Your task to perform on an android device: all mails in gmail Image 0: 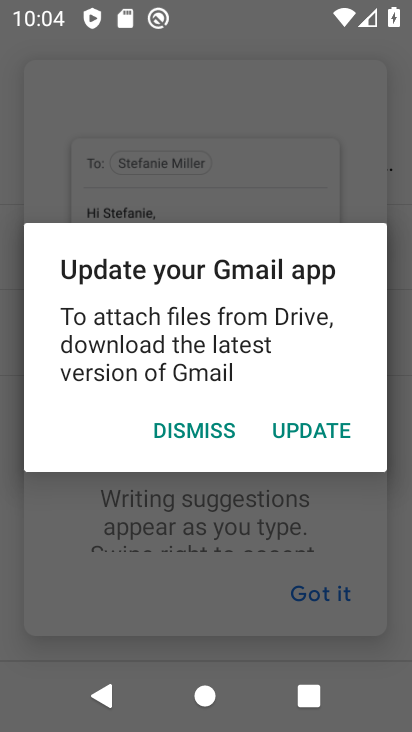
Step 0: press home button
Your task to perform on an android device: all mails in gmail Image 1: 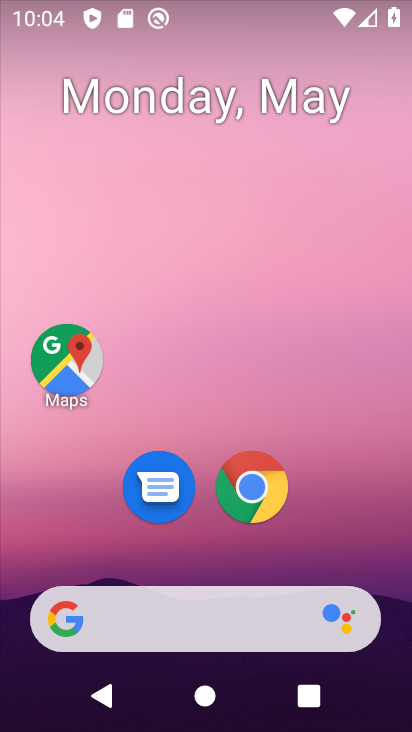
Step 1: drag from (199, 449) to (281, 20)
Your task to perform on an android device: all mails in gmail Image 2: 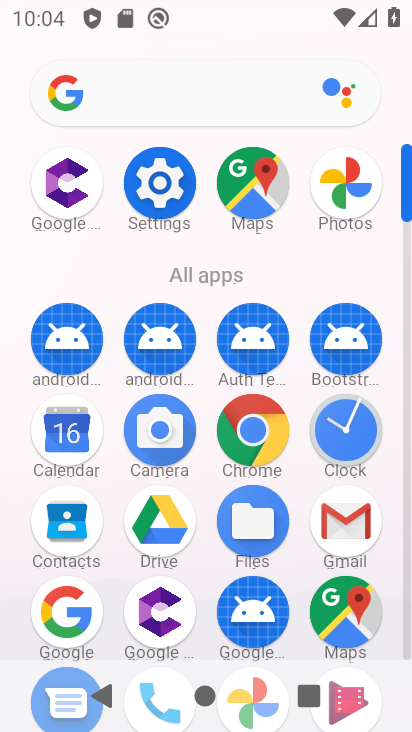
Step 2: click (332, 533)
Your task to perform on an android device: all mails in gmail Image 3: 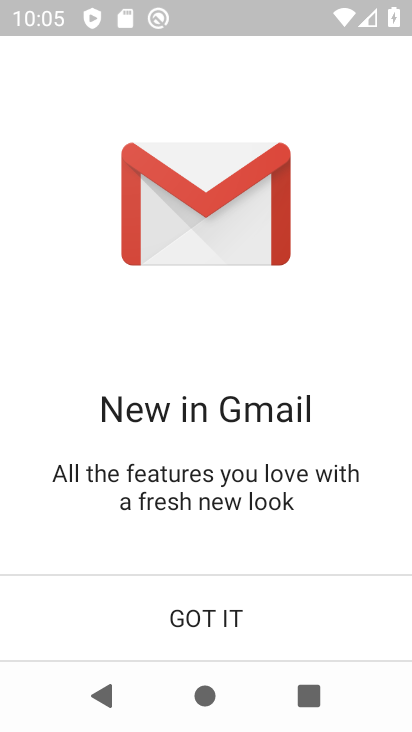
Step 3: click (245, 609)
Your task to perform on an android device: all mails in gmail Image 4: 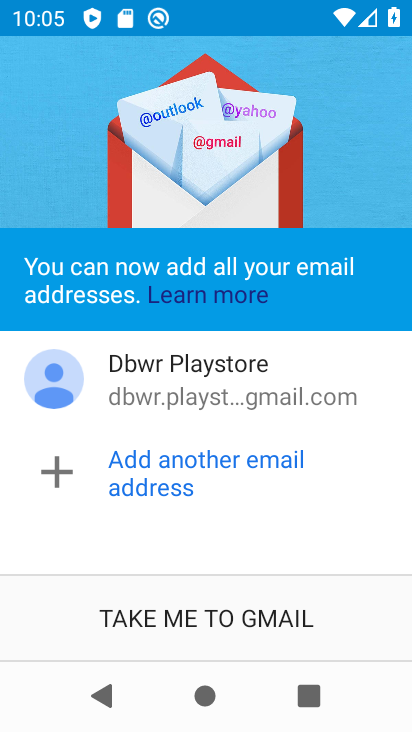
Step 4: click (165, 626)
Your task to perform on an android device: all mails in gmail Image 5: 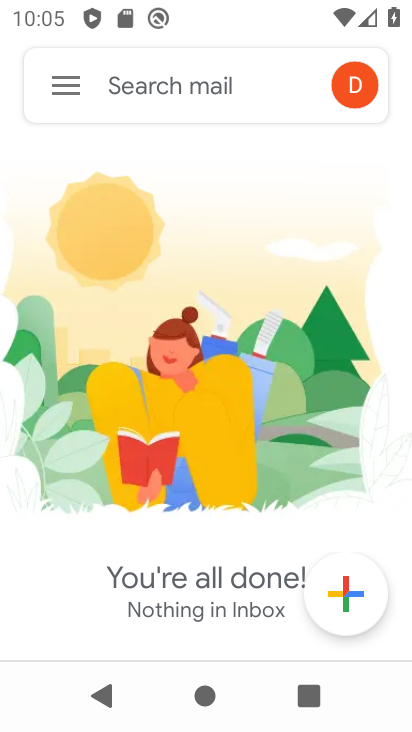
Step 5: task complete